Your task to perform on an android device: Do I have any events today? Image 0: 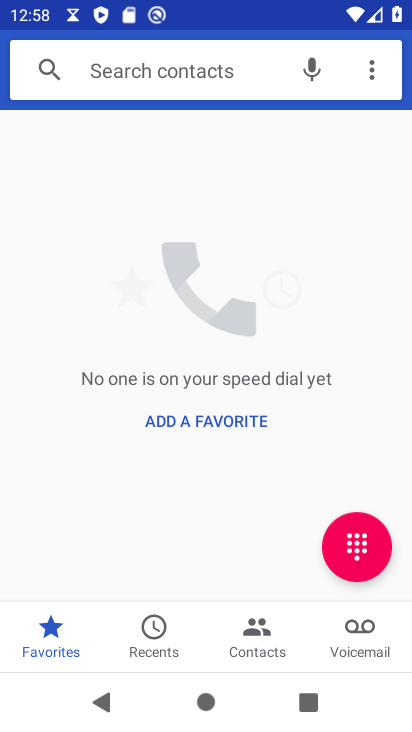
Step 0: press home button
Your task to perform on an android device: Do I have any events today? Image 1: 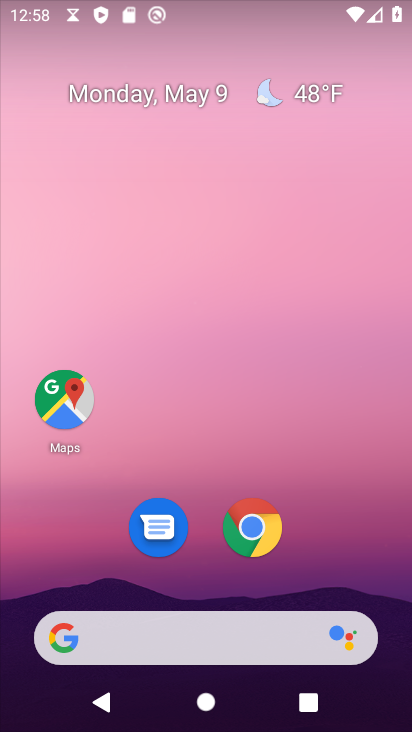
Step 1: drag from (177, 586) to (206, 175)
Your task to perform on an android device: Do I have any events today? Image 2: 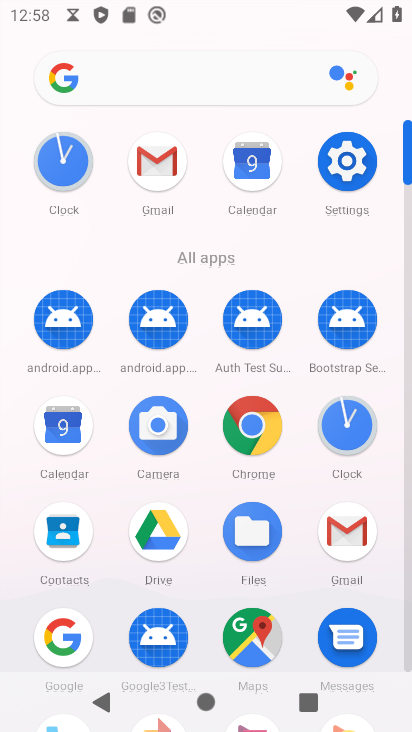
Step 2: click (70, 428)
Your task to perform on an android device: Do I have any events today? Image 3: 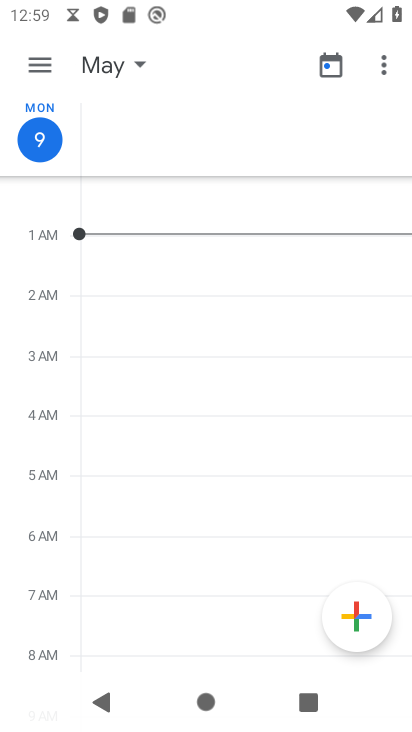
Step 3: click (43, 71)
Your task to perform on an android device: Do I have any events today? Image 4: 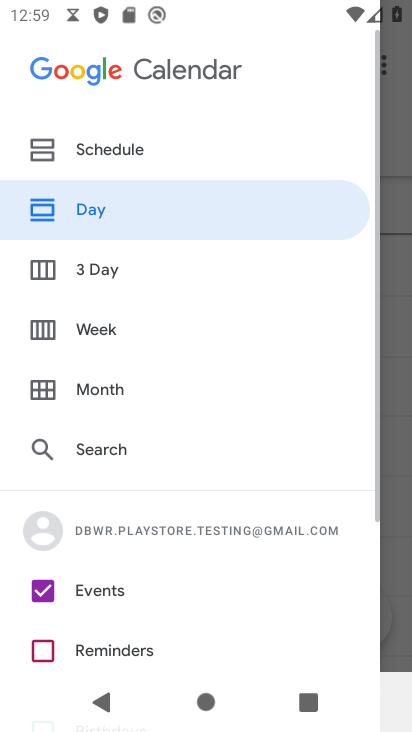
Step 4: drag from (152, 611) to (202, 309)
Your task to perform on an android device: Do I have any events today? Image 5: 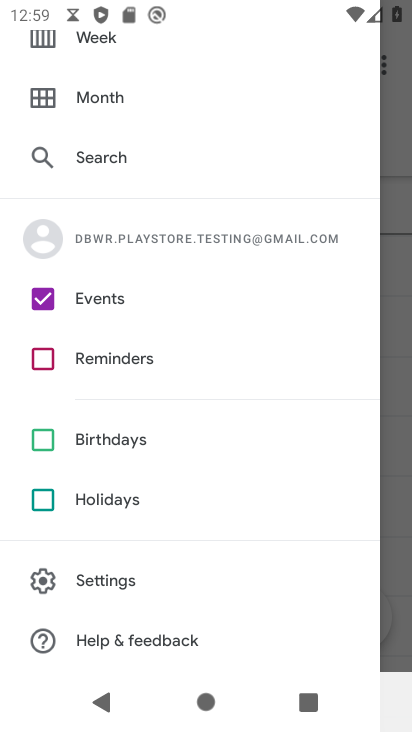
Step 5: drag from (210, 237) to (217, 552)
Your task to perform on an android device: Do I have any events today? Image 6: 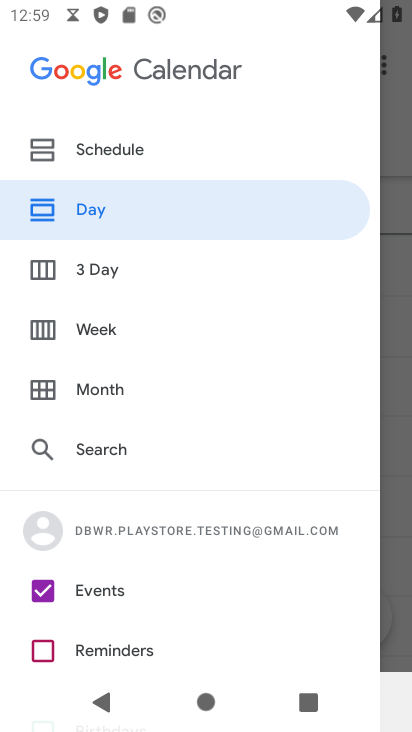
Step 6: click (146, 199)
Your task to perform on an android device: Do I have any events today? Image 7: 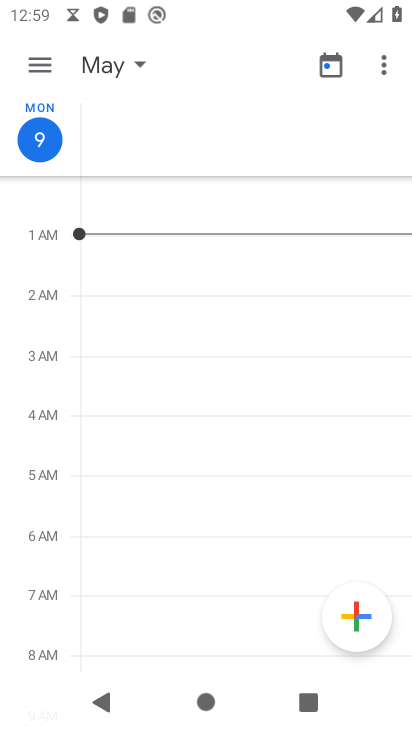
Step 7: task complete